Your task to perform on an android device: open chrome and create a bookmark for the current page Image 0: 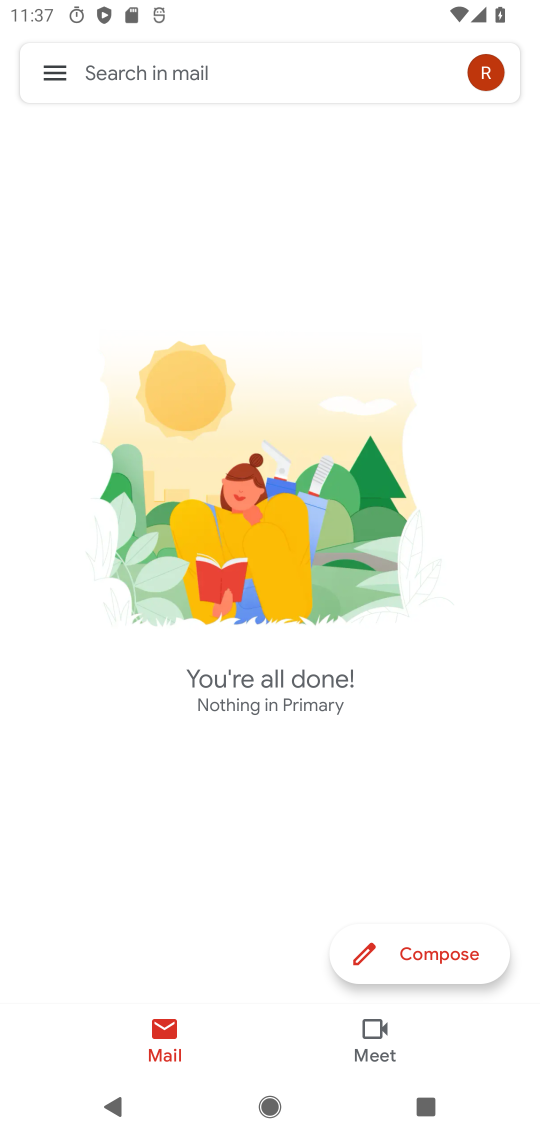
Step 0: press home button
Your task to perform on an android device: open chrome and create a bookmark for the current page Image 1: 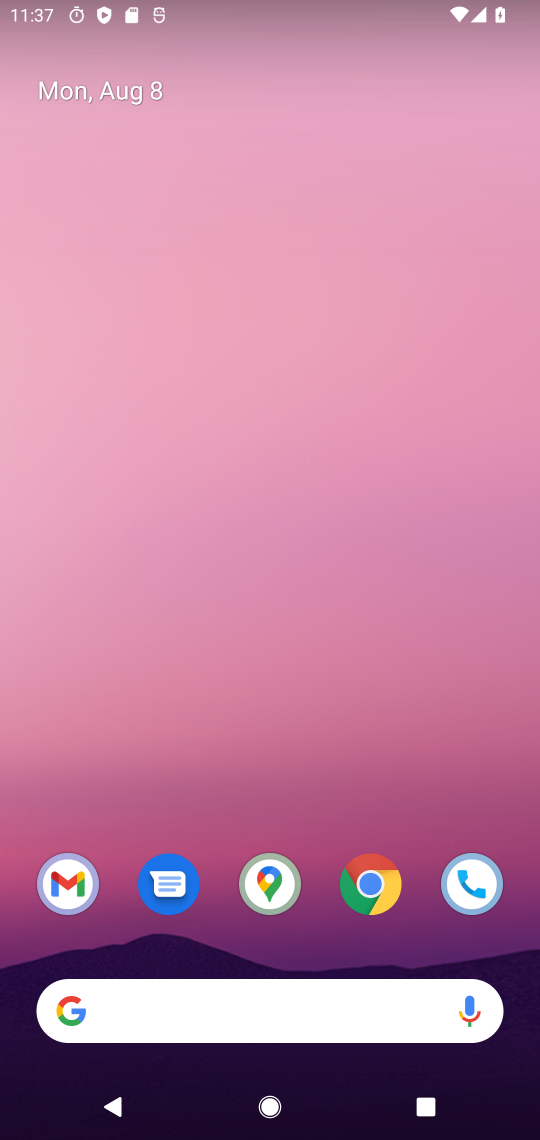
Step 1: click (382, 891)
Your task to perform on an android device: open chrome and create a bookmark for the current page Image 2: 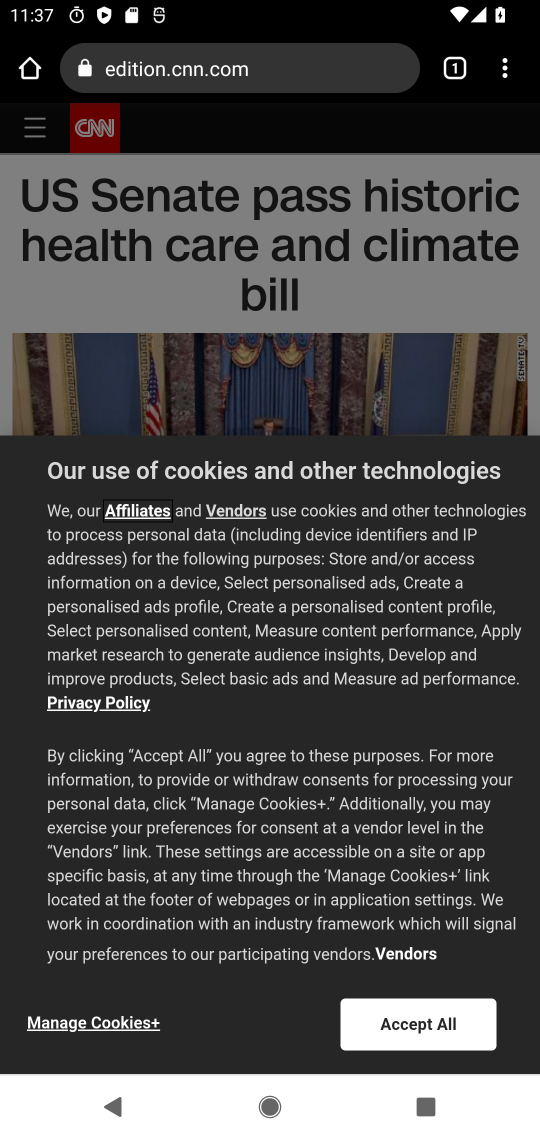
Step 2: click (510, 70)
Your task to perform on an android device: open chrome and create a bookmark for the current page Image 3: 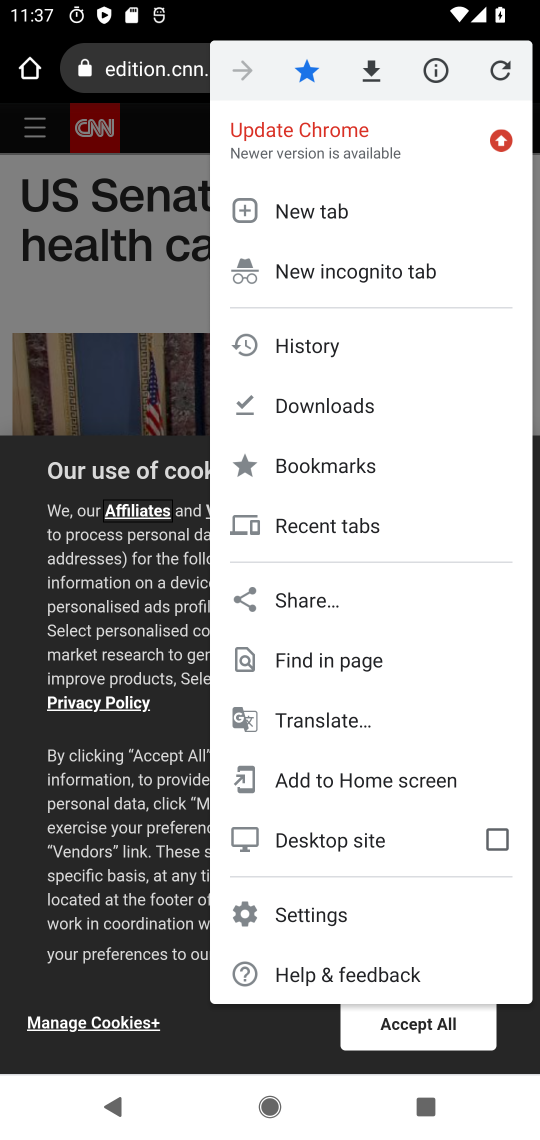
Step 3: task complete